Your task to perform on an android device: What's on my calendar for the rest of the week? Image 0: 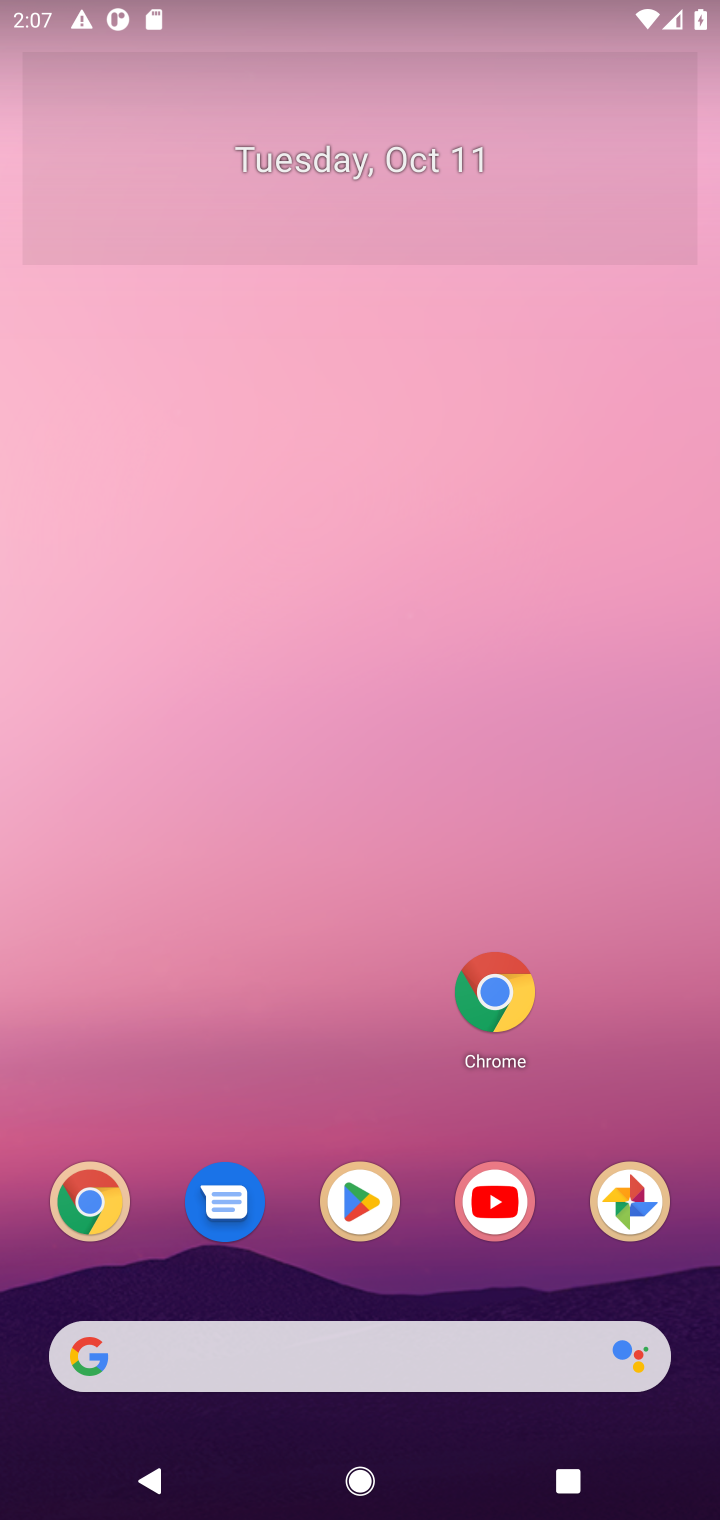
Step 0: drag from (341, 1224) to (534, 396)
Your task to perform on an android device: What's on my calendar for the rest of the week? Image 1: 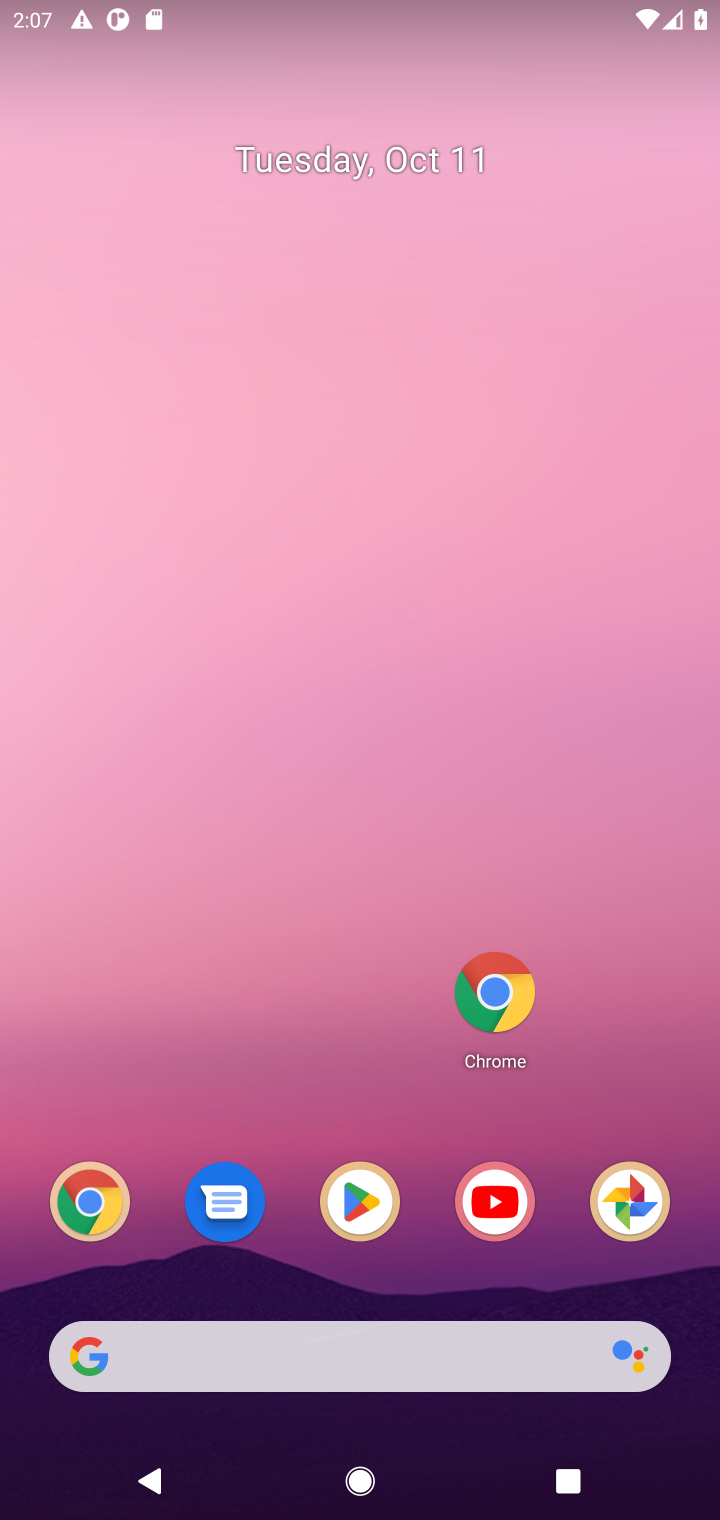
Step 1: drag from (367, 1331) to (491, 458)
Your task to perform on an android device: What's on my calendar for the rest of the week? Image 2: 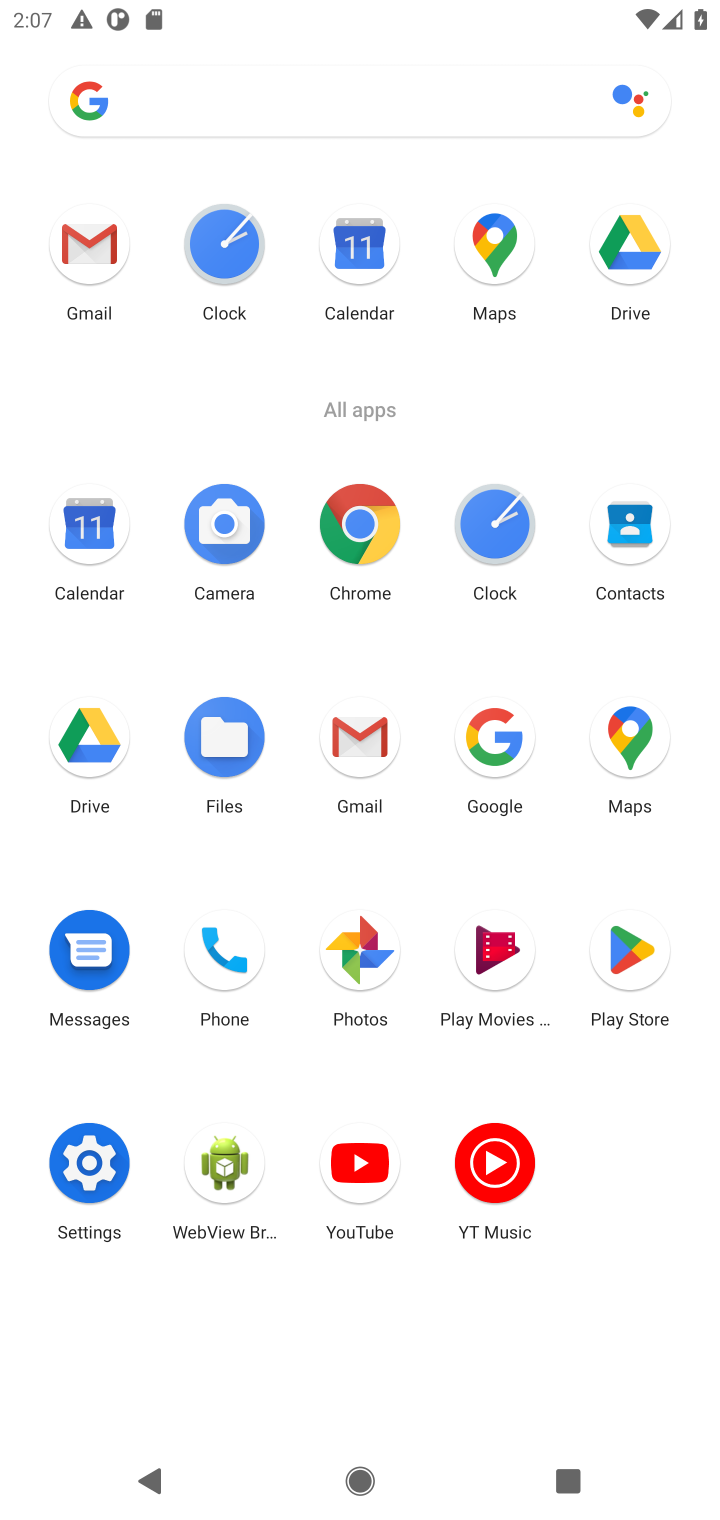
Step 2: click (82, 538)
Your task to perform on an android device: What's on my calendar for the rest of the week? Image 3: 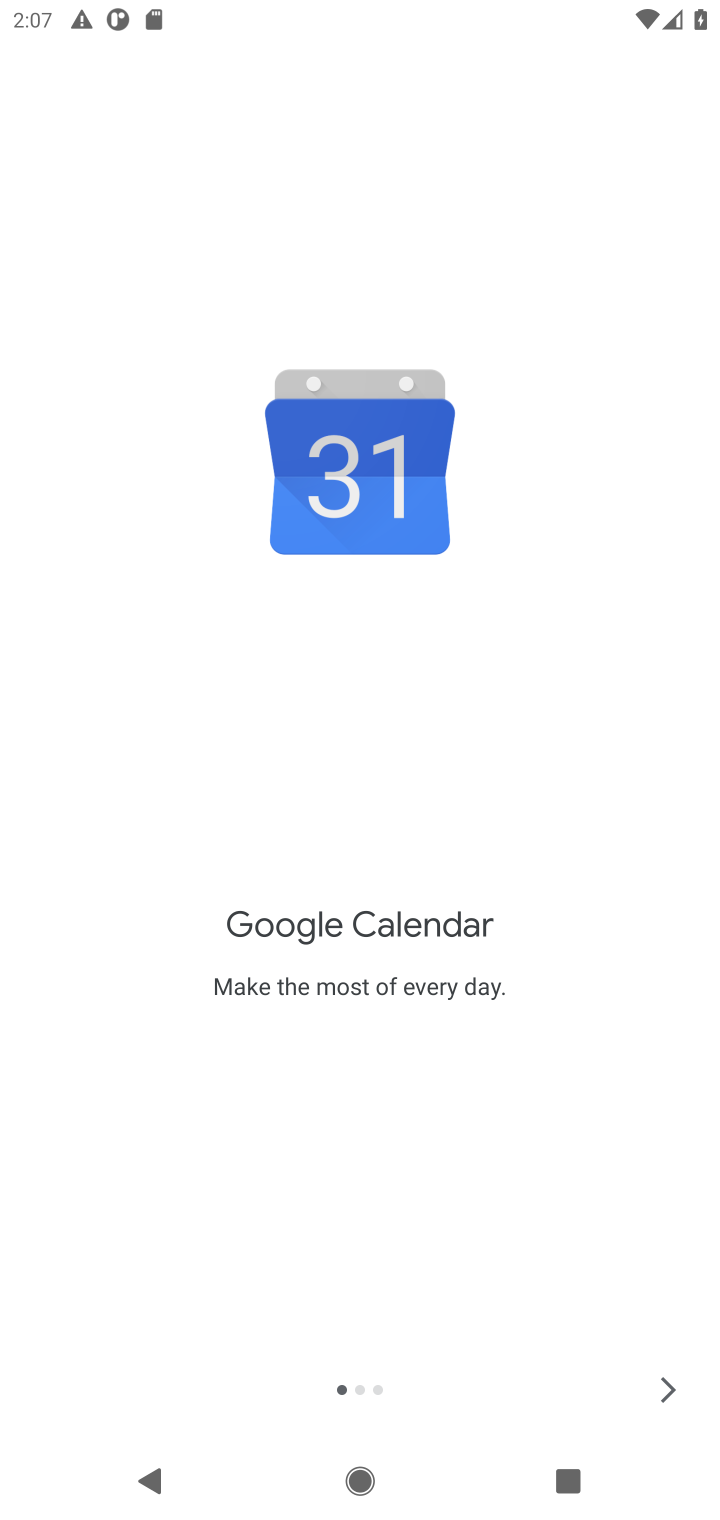
Step 3: click (670, 1379)
Your task to perform on an android device: What's on my calendar for the rest of the week? Image 4: 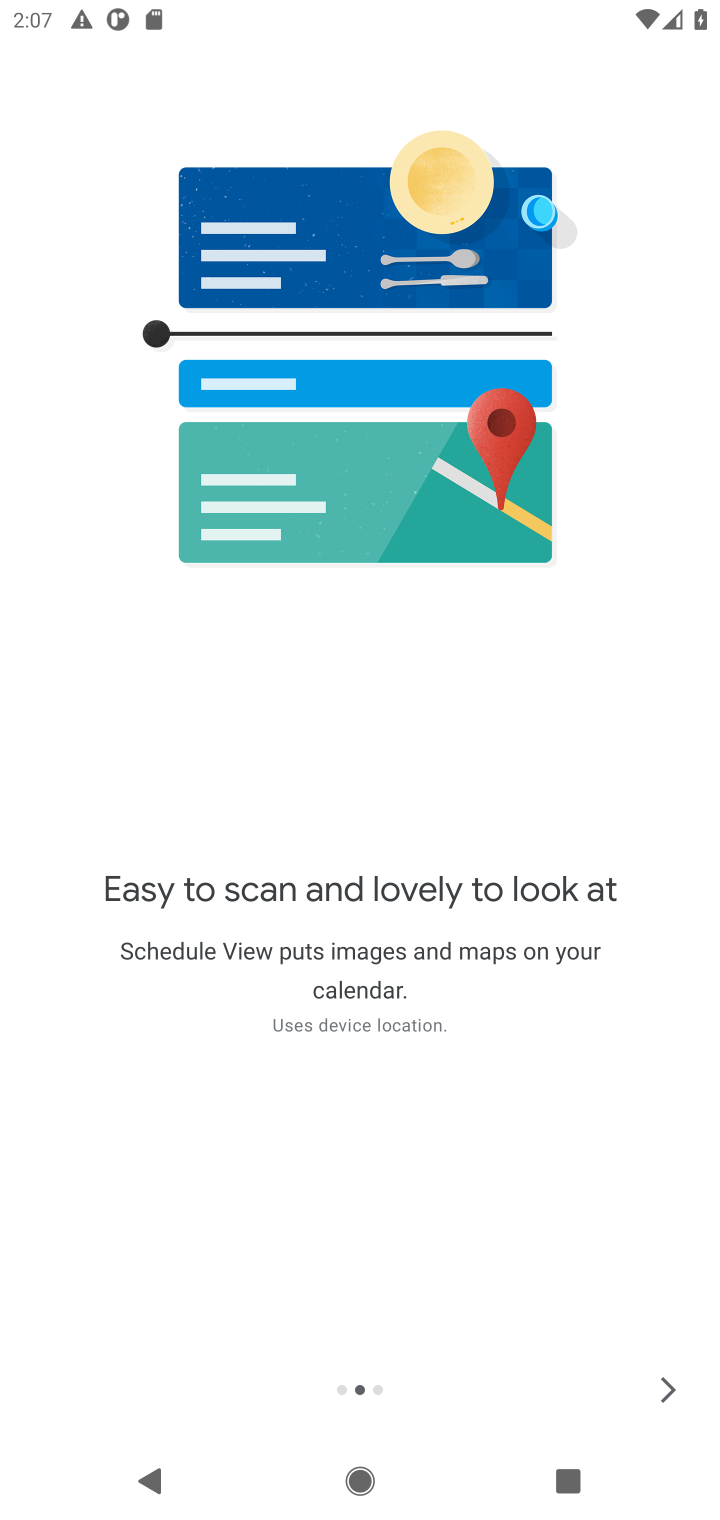
Step 4: click (660, 1396)
Your task to perform on an android device: What's on my calendar for the rest of the week? Image 5: 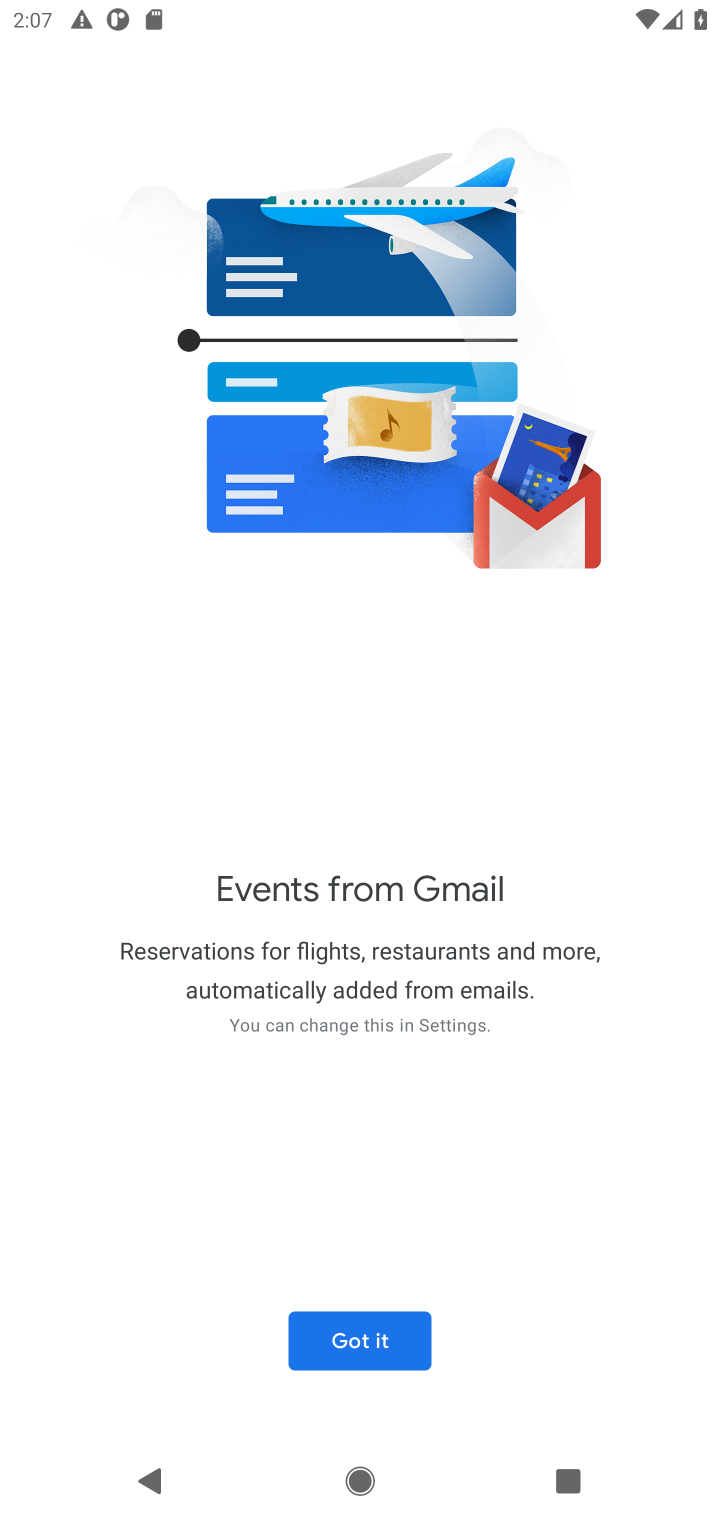
Step 5: click (388, 1343)
Your task to perform on an android device: What's on my calendar for the rest of the week? Image 6: 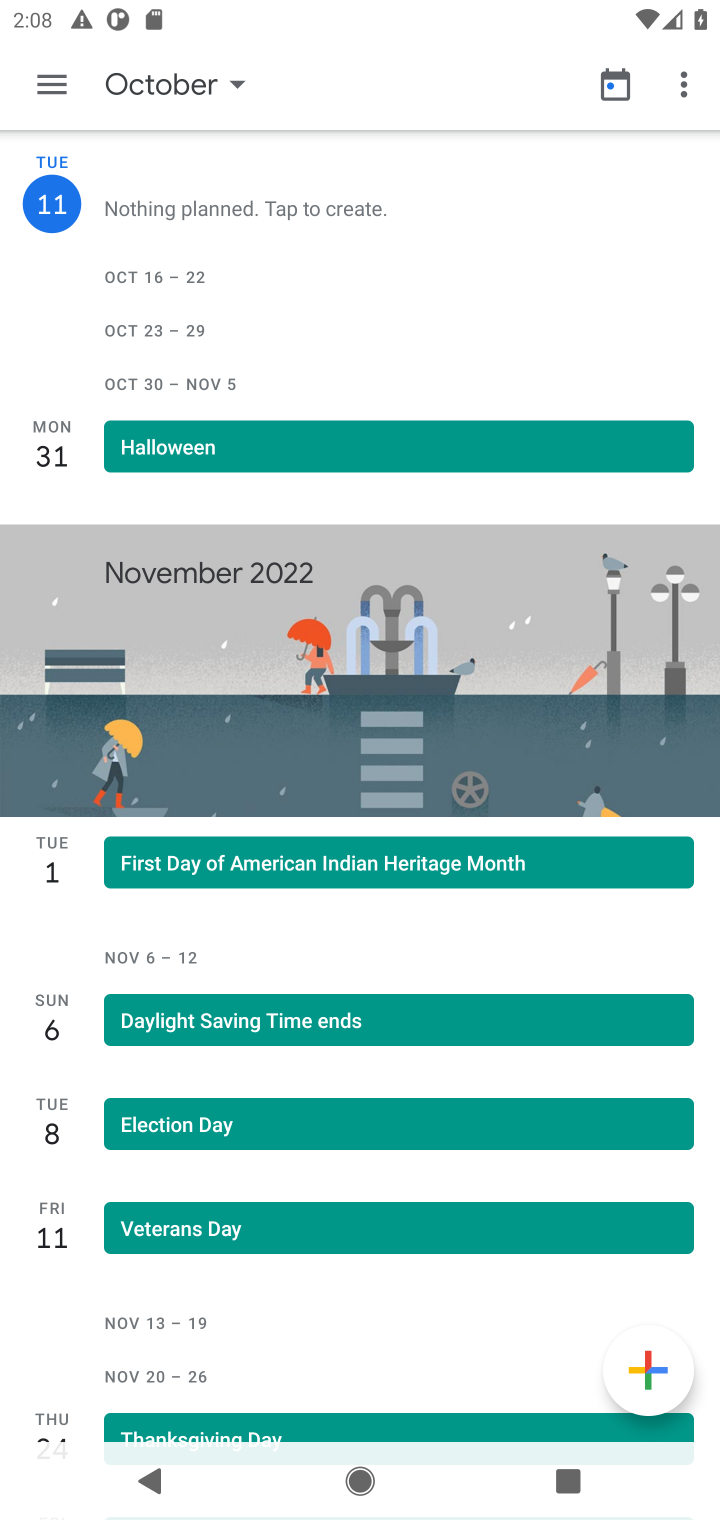
Step 6: task complete